Your task to perform on an android device: What's the weather going to be tomorrow? Image 0: 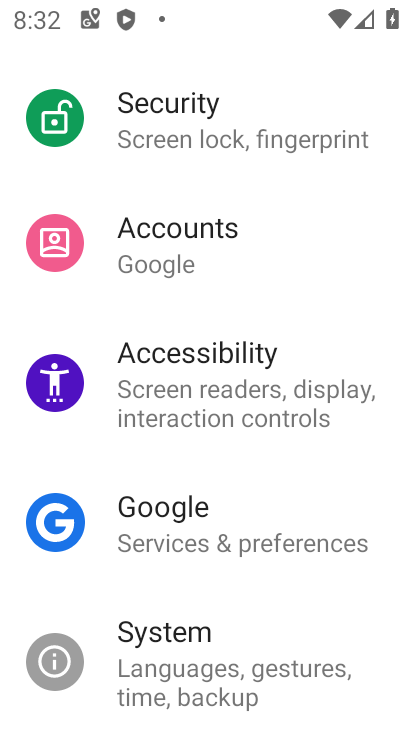
Step 0: press back button
Your task to perform on an android device: What's the weather going to be tomorrow? Image 1: 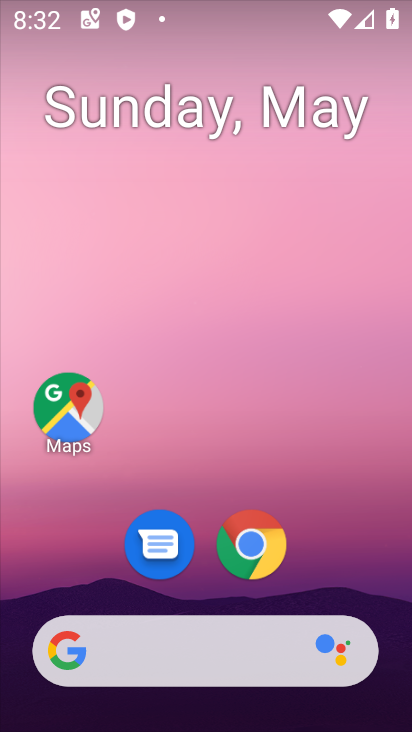
Step 1: drag from (354, 543) to (288, 18)
Your task to perform on an android device: What's the weather going to be tomorrow? Image 2: 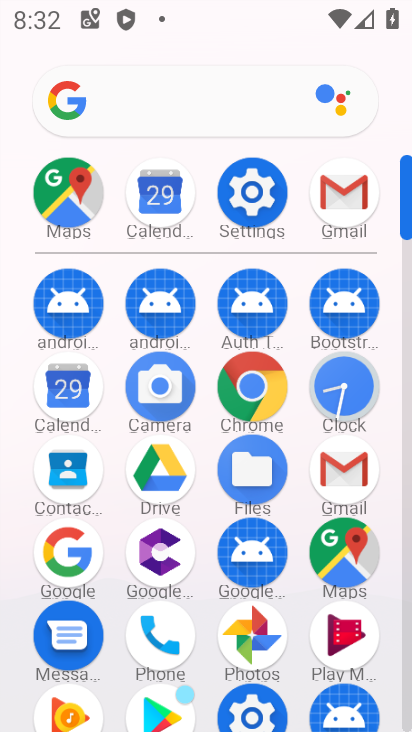
Step 2: drag from (11, 558) to (7, 224)
Your task to perform on an android device: What's the weather going to be tomorrow? Image 3: 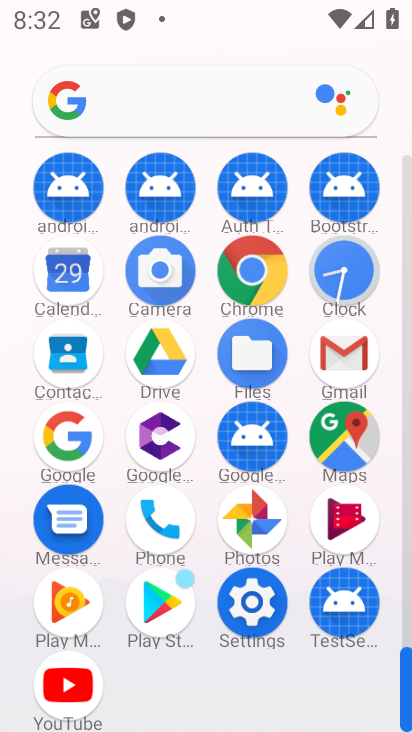
Step 3: drag from (14, 551) to (11, 242)
Your task to perform on an android device: What's the weather going to be tomorrow? Image 4: 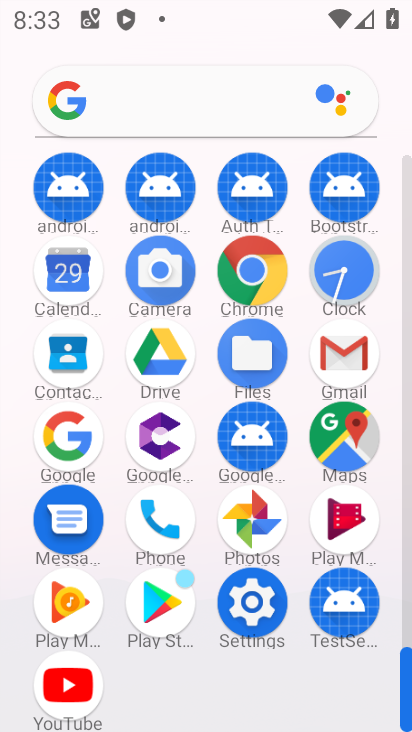
Step 4: click (260, 264)
Your task to perform on an android device: What's the weather going to be tomorrow? Image 5: 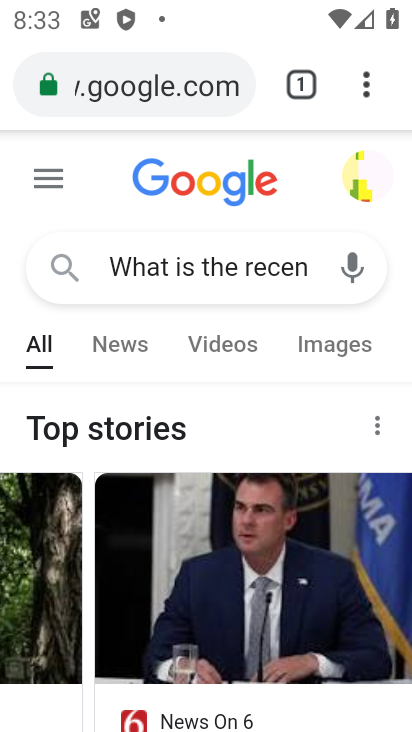
Step 5: click (199, 85)
Your task to perform on an android device: What's the weather going to be tomorrow? Image 6: 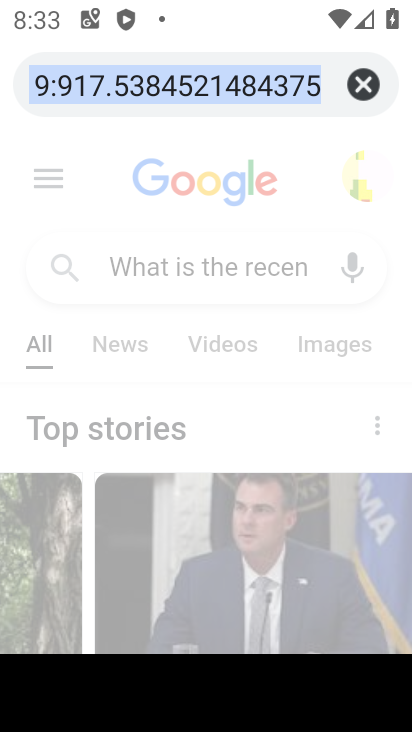
Step 6: click (354, 84)
Your task to perform on an android device: What's the weather going to be tomorrow? Image 7: 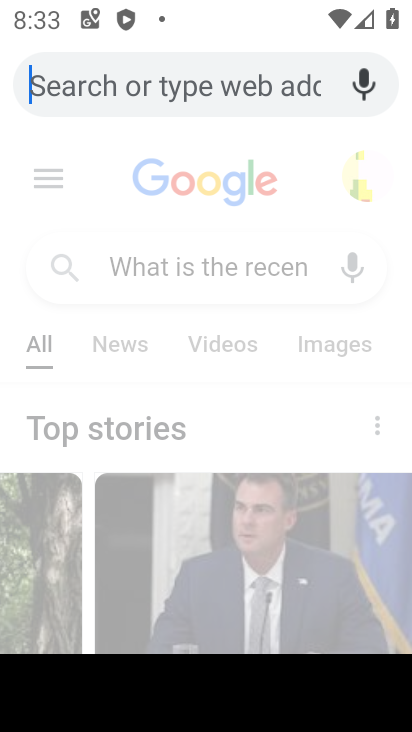
Step 7: type "What's the weather going to be tomorrow?"
Your task to perform on an android device: What's the weather going to be tomorrow? Image 8: 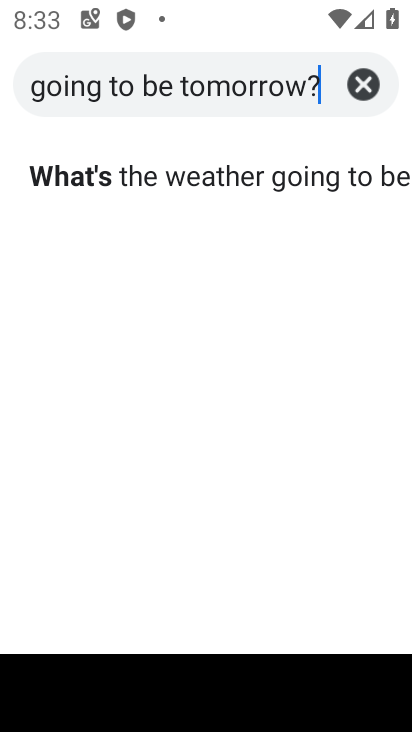
Step 8: type ""
Your task to perform on an android device: What's the weather going to be tomorrow? Image 9: 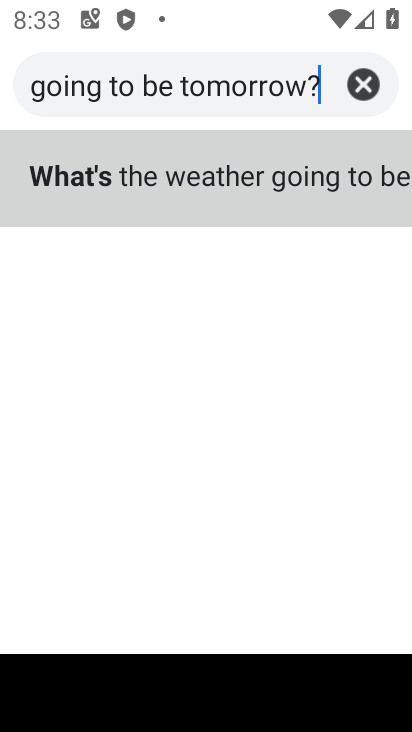
Step 9: click (170, 173)
Your task to perform on an android device: What's the weather going to be tomorrow? Image 10: 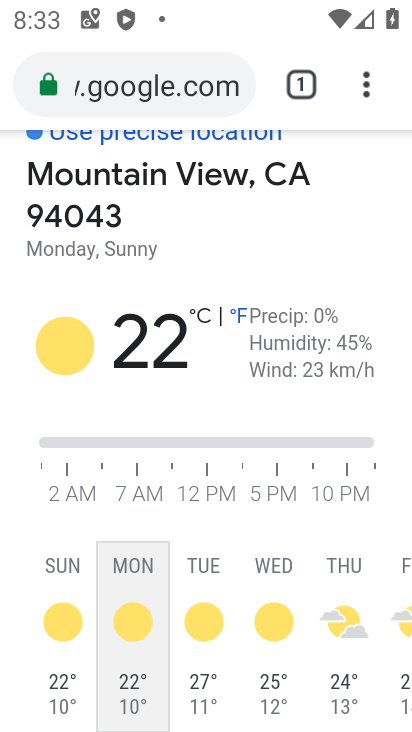
Step 10: task complete